Your task to perform on an android device: allow cookies in the chrome app Image 0: 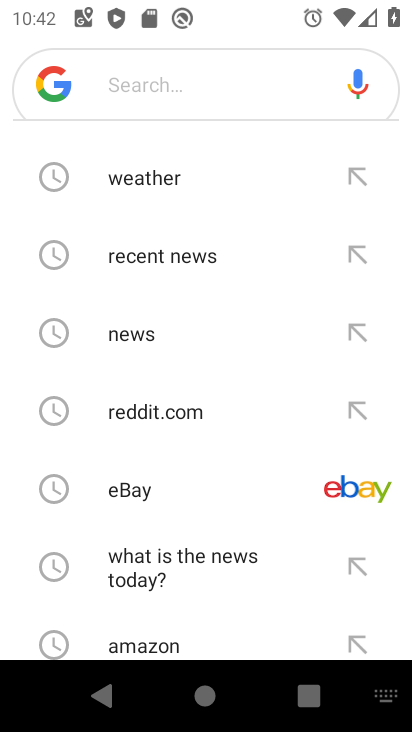
Step 0: press back button
Your task to perform on an android device: allow cookies in the chrome app Image 1: 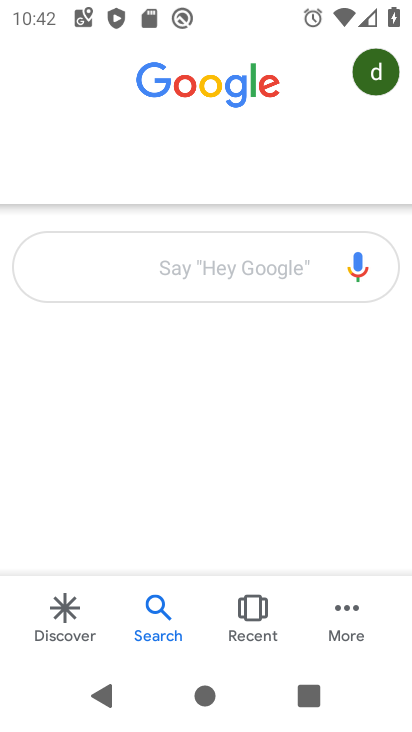
Step 1: press home button
Your task to perform on an android device: allow cookies in the chrome app Image 2: 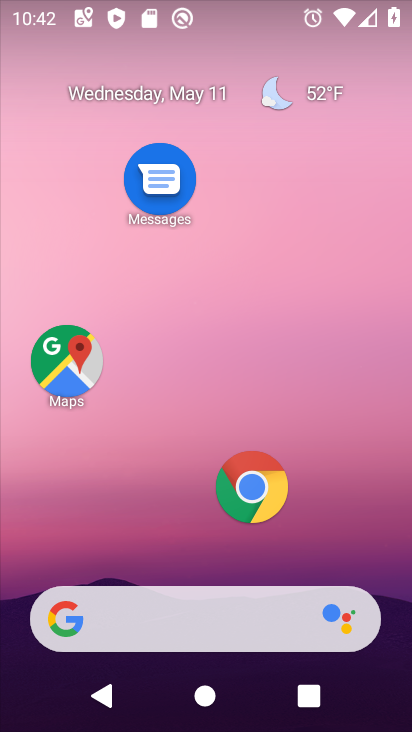
Step 2: click (237, 508)
Your task to perform on an android device: allow cookies in the chrome app Image 3: 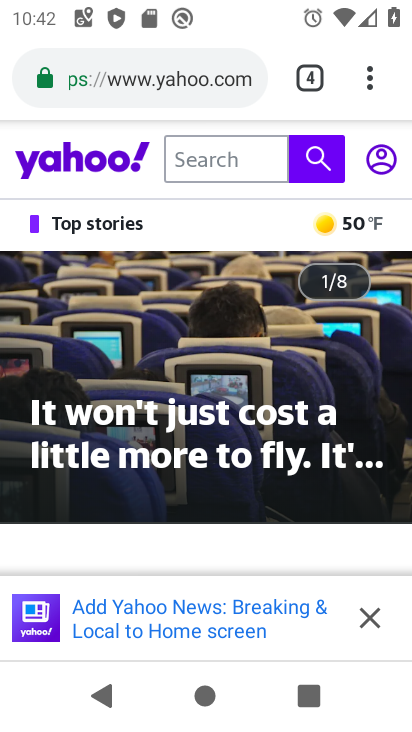
Step 3: drag from (372, 76) to (98, 549)
Your task to perform on an android device: allow cookies in the chrome app Image 4: 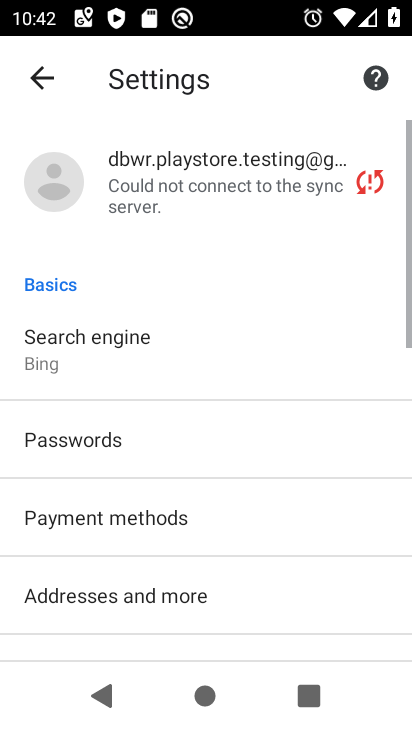
Step 4: drag from (201, 527) to (308, 225)
Your task to perform on an android device: allow cookies in the chrome app Image 5: 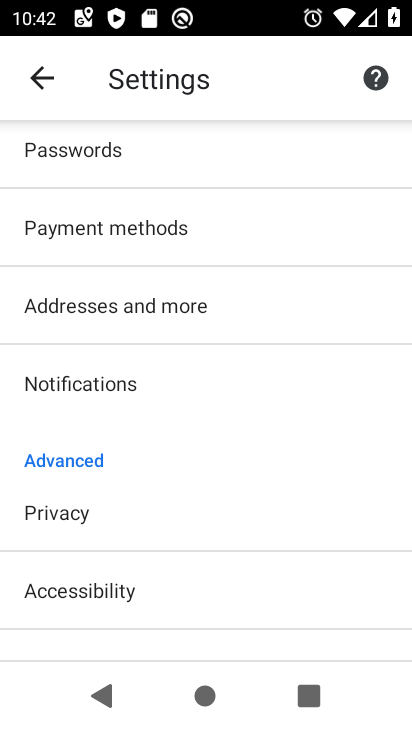
Step 5: drag from (151, 541) to (204, 326)
Your task to perform on an android device: allow cookies in the chrome app Image 6: 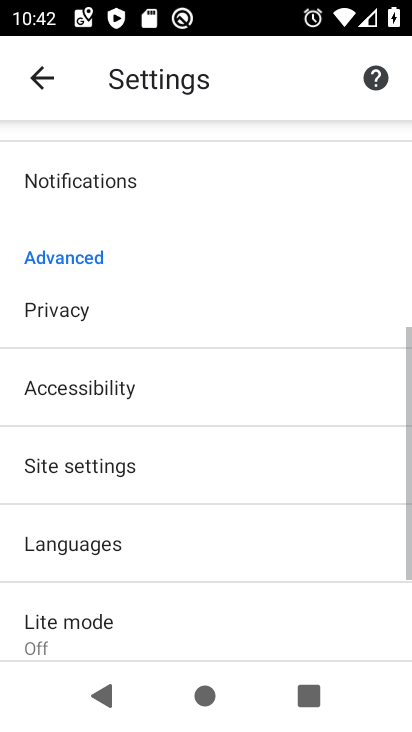
Step 6: click (150, 467)
Your task to perform on an android device: allow cookies in the chrome app Image 7: 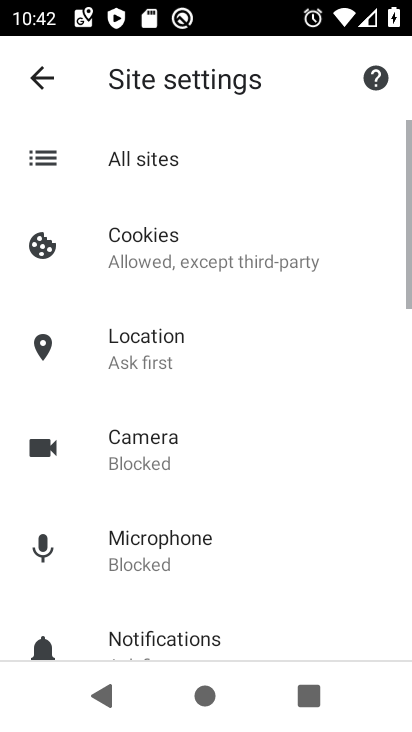
Step 7: click (231, 263)
Your task to perform on an android device: allow cookies in the chrome app Image 8: 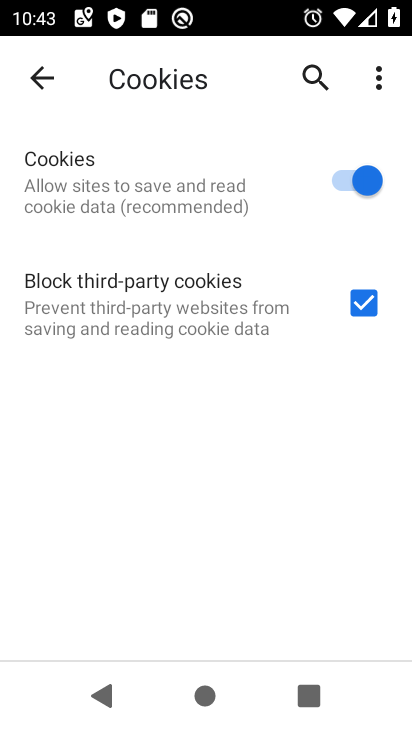
Step 8: task complete